Your task to perform on an android device: toggle improve location accuracy Image 0: 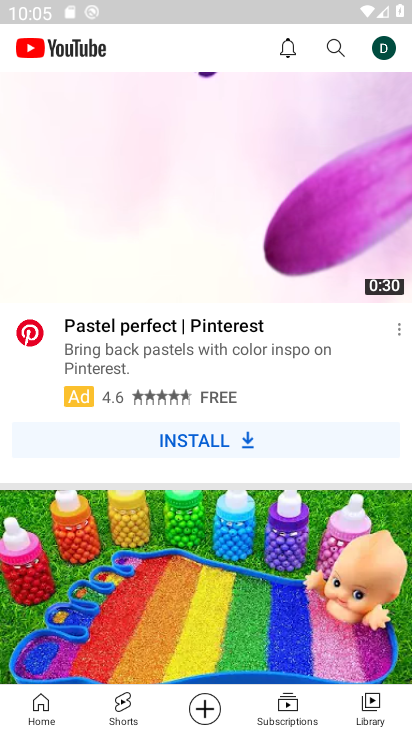
Step 0: press back button
Your task to perform on an android device: toggle improve location accuracy Image 1: 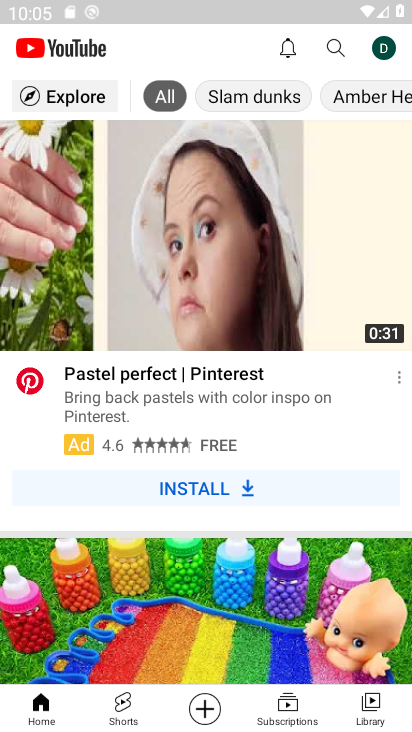
Step 1: press back button
Your task to perform on an android device: toggle improve location accuracy Image 2: 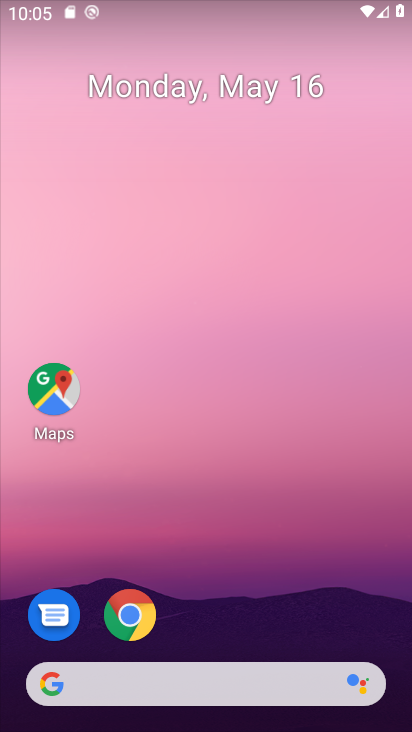
Step 2: drag from (267, 572) to (236, 14)
Your task to perform on an android device: toggle improve location accuracy Image 3: 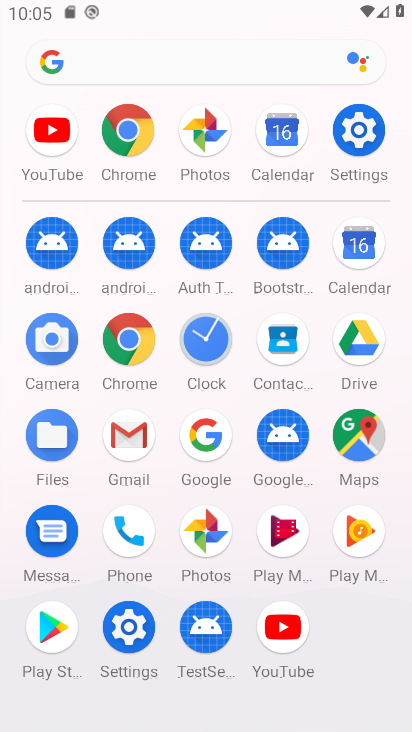
Step 3: click (130, 623)
Your task to perform on an android device: toggle improve location accuracy Image 4: 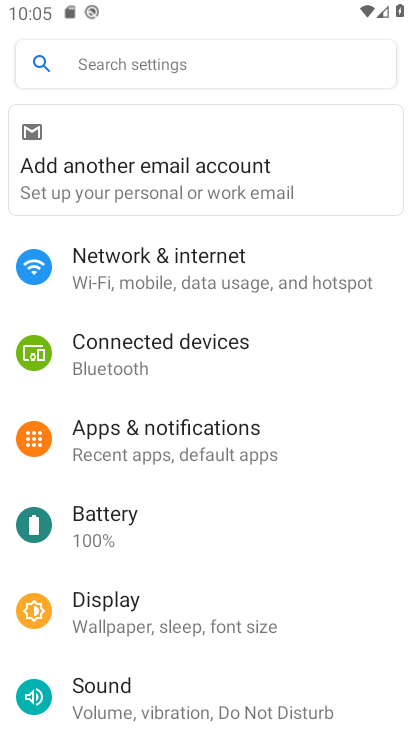
Step 4: drag from (268, 600) to (329, 221)
Your task to perform on an android device: toggle improve location accuracy Image 5: 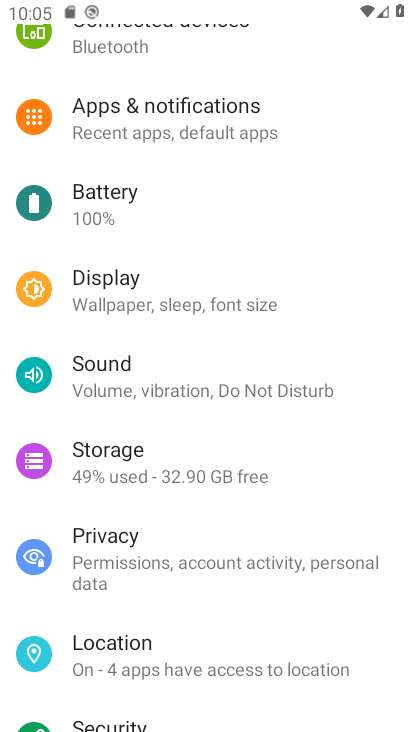
Step 5: drag from (236, 591) to (281, 238)
Your task to perform on an android device: toggle improve location accuracy Image 6: 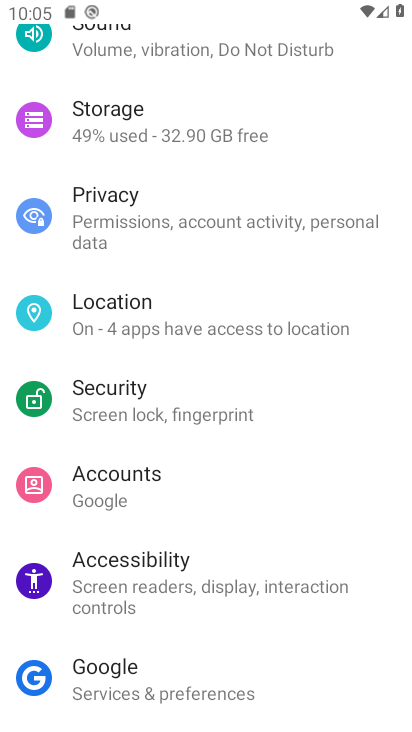
Step 6: click (187, 313)
Your task to perform on an android device: toggle improve location accuracy Image 7: 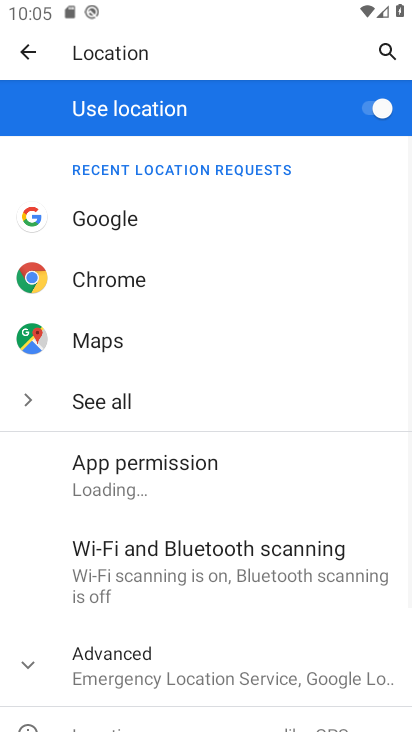
Step 7: click (56, 666)
Your task to perform on an android device: toggle improve location accuracy Image 8: 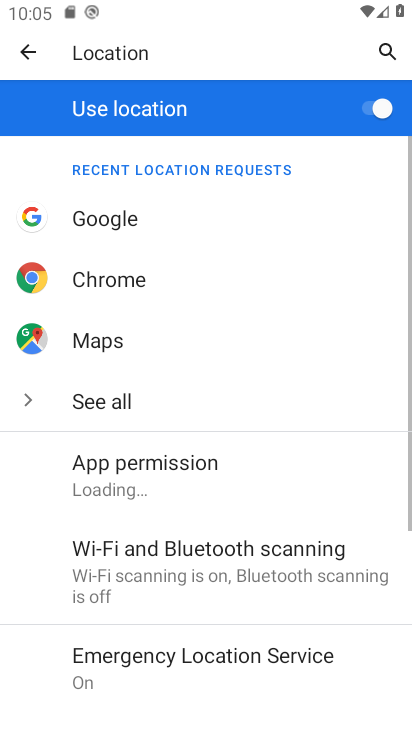
Step 8: drag from (223, 586) to (265, 213)
Your task to perform on an android device: toggle improve location accuracy Image 9: 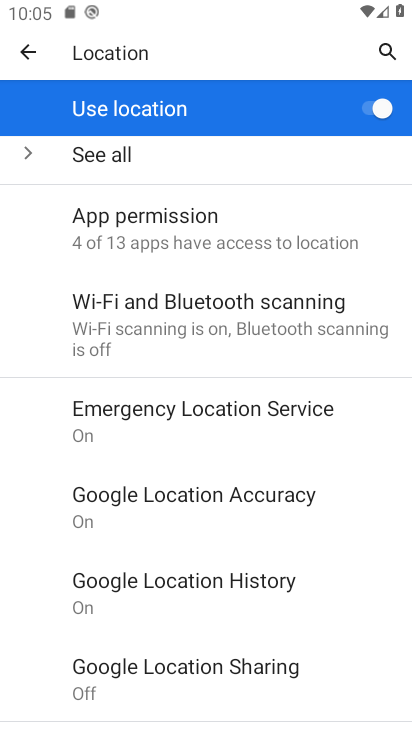
Step 9: click (281, 493)
Your task to perform on an android device: toggle improve location accuracy Image 10: 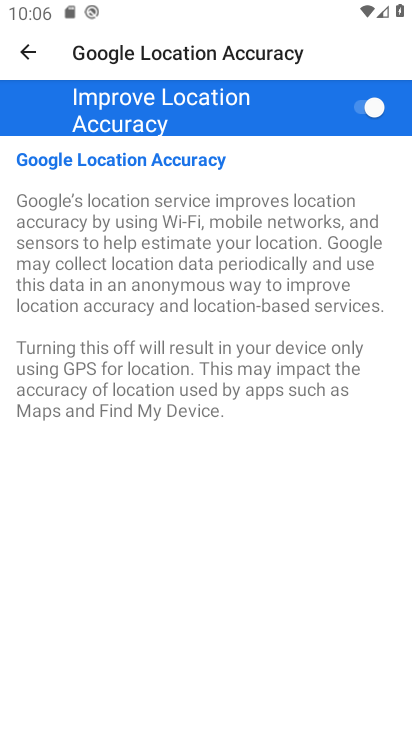
Step 10: task complete